Your task to perform on an android device: Go to notification settings Image 0: 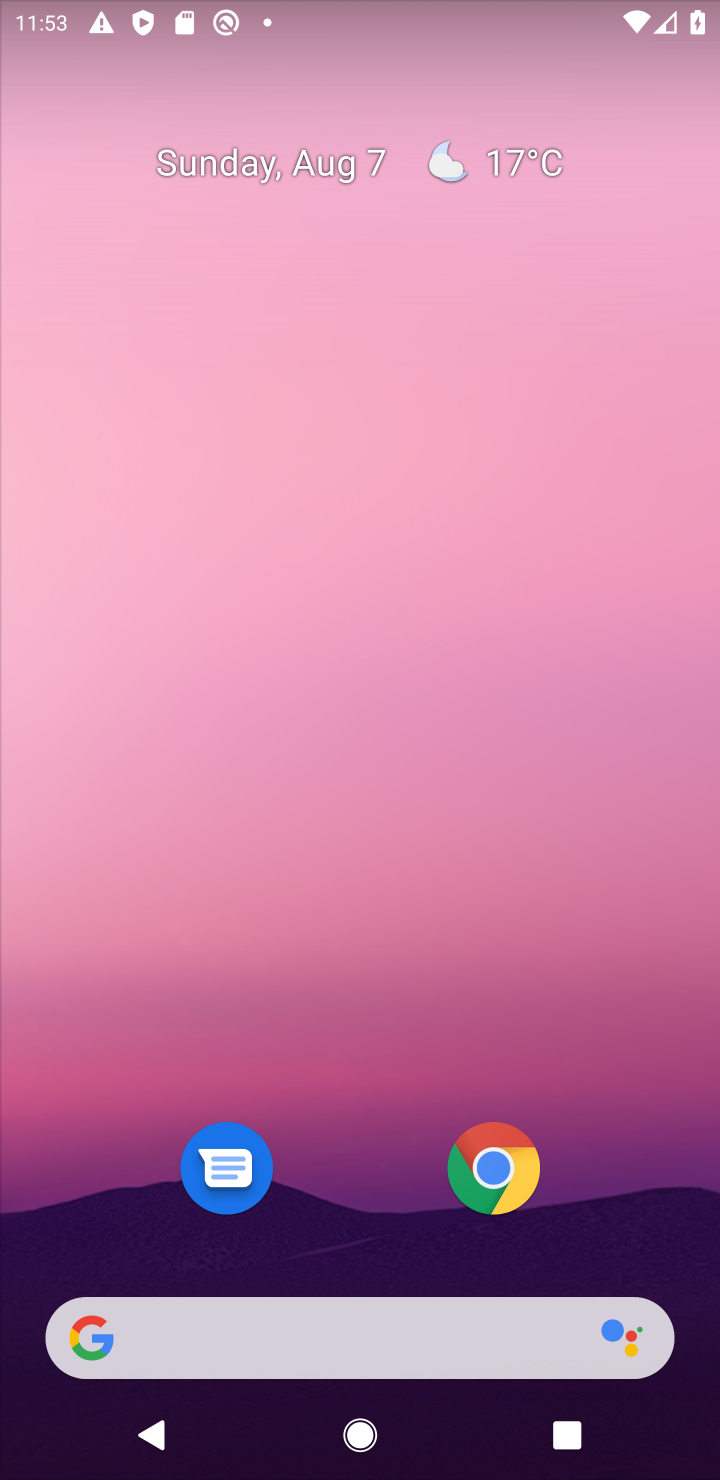
Step 0: drag from (64, 1428) to (386, 759)
Your task to perform on an android device: Go to notification settings Image 1: 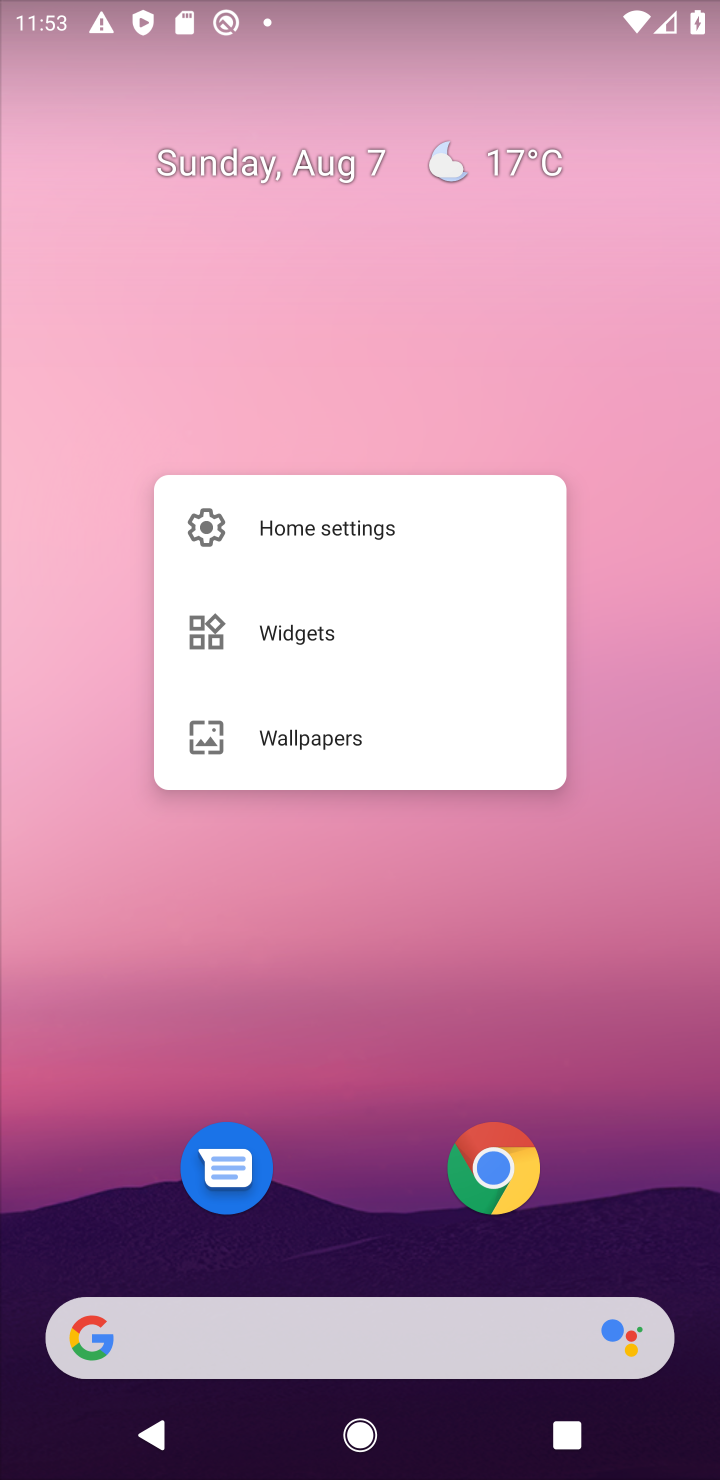
Step 1: click (37, 1401)
Your task to perform on an android device: Go to notification settings Image 2: 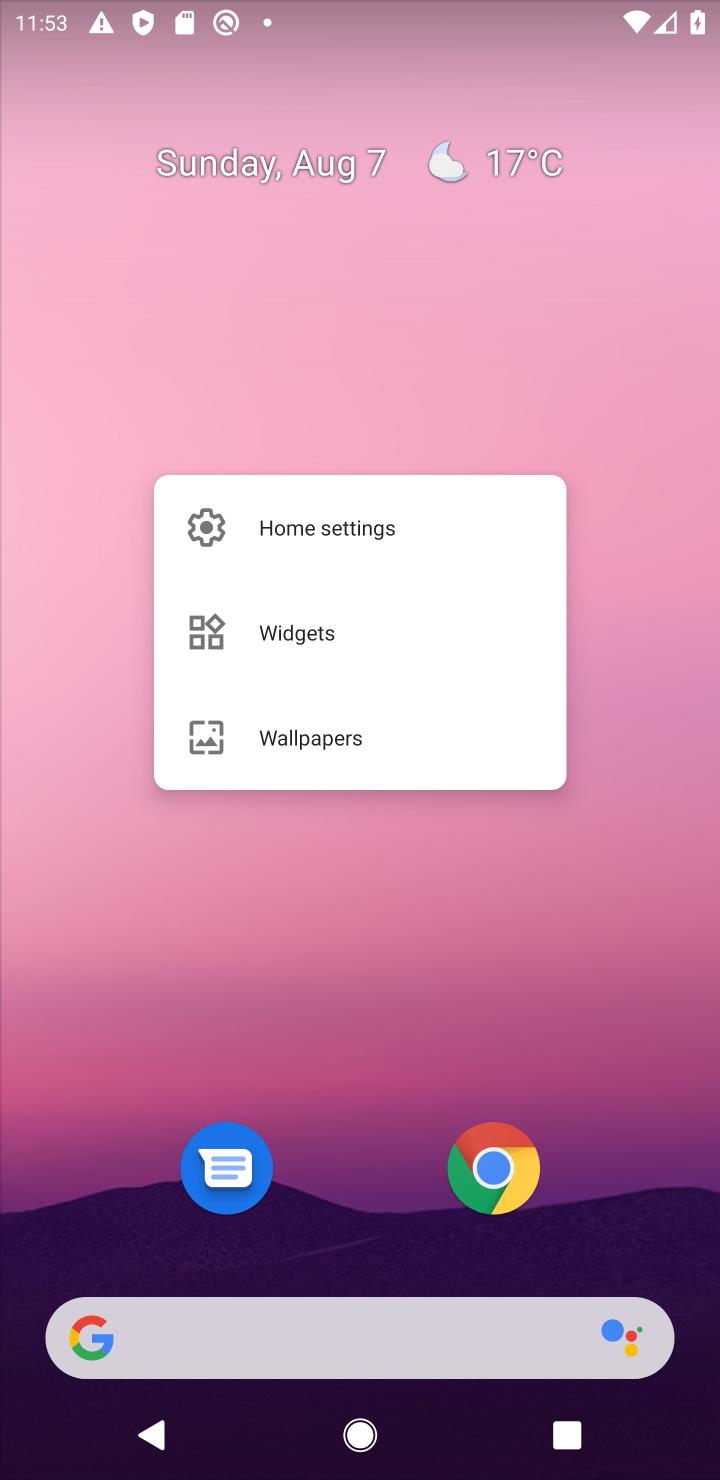
Step 2: task complete